Your task to perform on an android device: Go to Wikipedia Image 0: 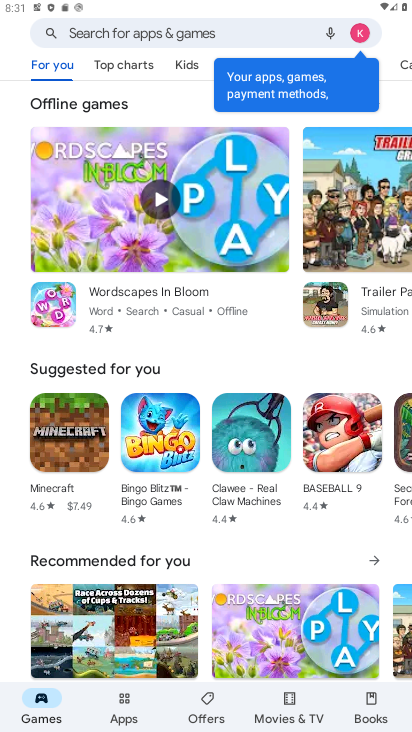
Step 0: press home button
Your task to perform on an android device: Go to Wikipedia Image 1: 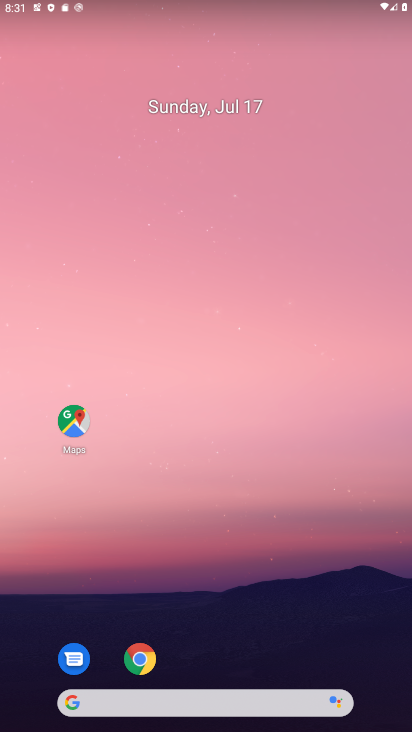
Step 1: click (147, 663)
Your task to perform on an android device: Go to Wikipedia Image 2: 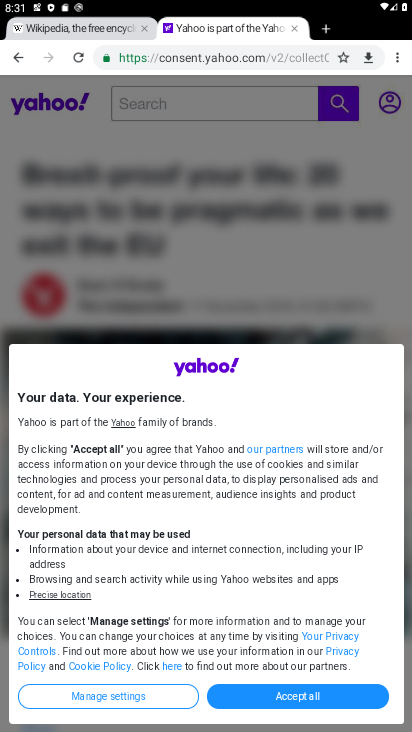
Step 2: click (320, 27)
Your task to perform on an android device: Go to Wikipedia Image 3: 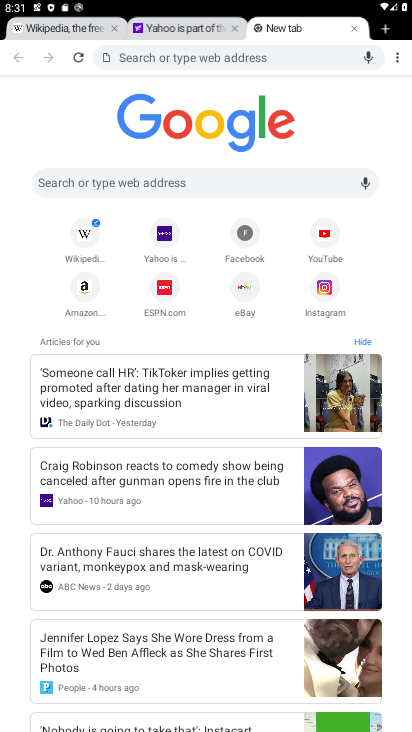
Step 3: click (92, 238)
Your task to perform on an android device: Go to Wikipedia Image 4: 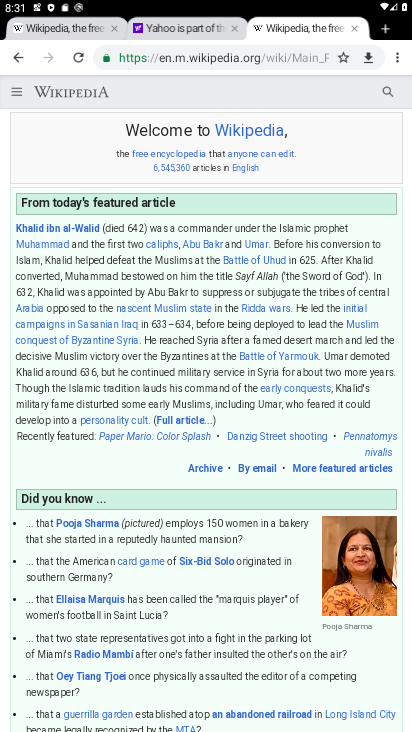
Step 4: task complete